Your task to perform on an android device: change the clock style Image 0: 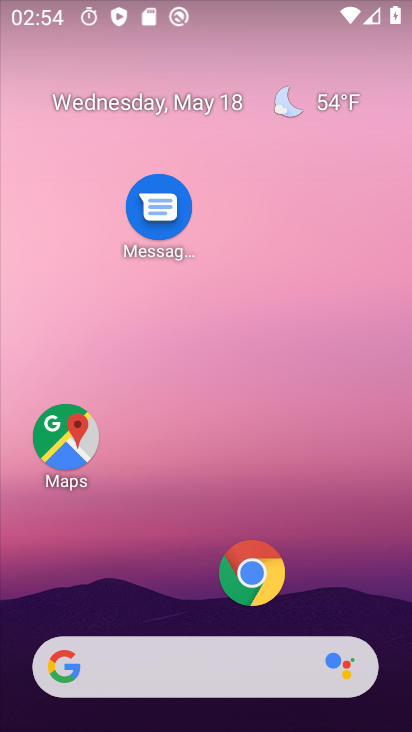
Step 0: drag from (201, 593) to (231, 244)
Your task to perform on an android device: change the clock style Image 1: 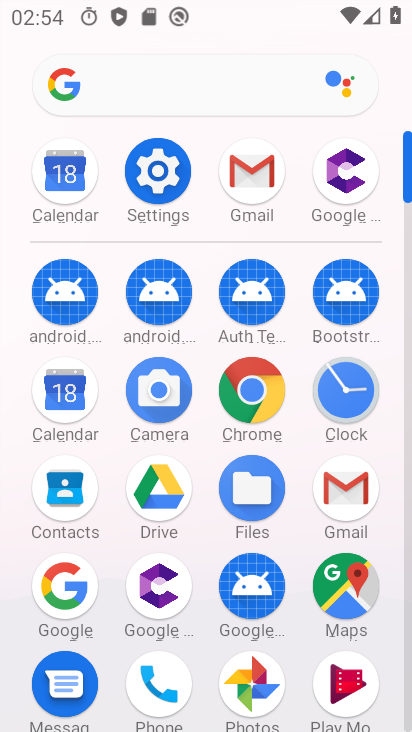
Step 1: click (339, 389)
Your task to perform on an android device: change the clock style Image 2: 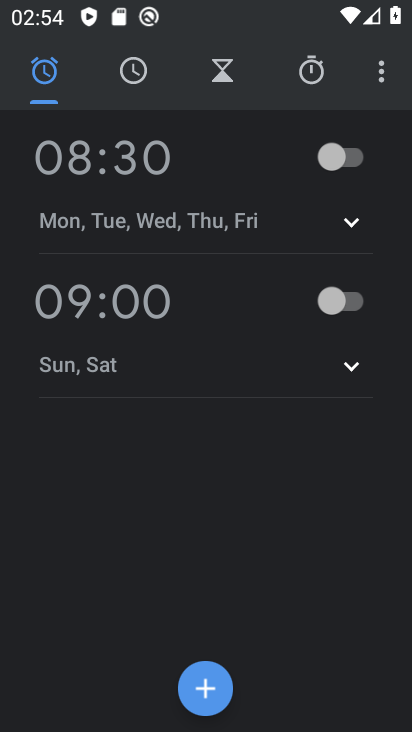
Step 2: click (382, 63)
Your task to perform on an android device: change the clock style Image 3: 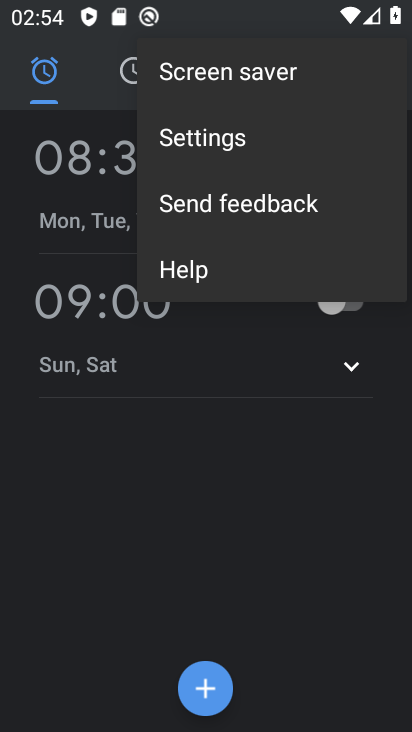
Step 3: click (265, 138)
Your task to perform on an android device: change the clock style Image 4: 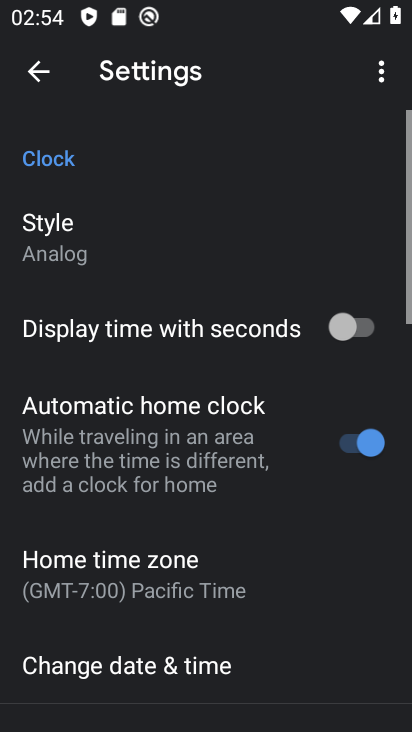
Step 4: click (70, 228)
Your task to perform on an android device: change the clock style Image 5: 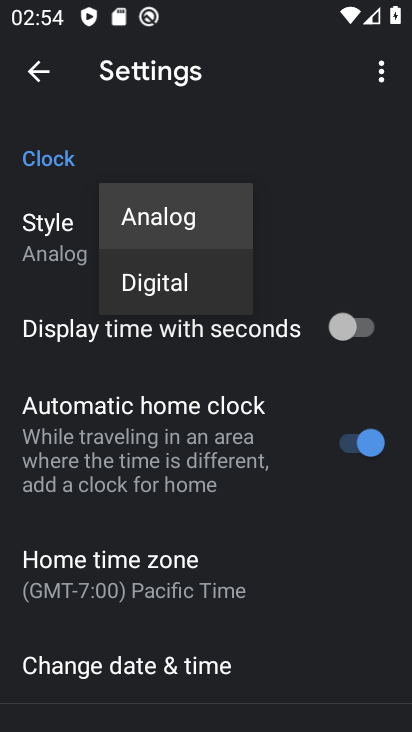
Step 5: click (137, 270)
Your task to perform on an android device: change the clock style Image 6: 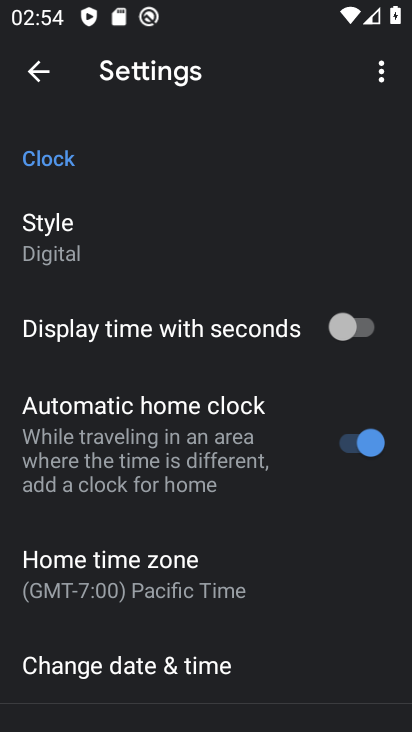
Step 6: task complete